Your task to perform on an android device: Open the stopwatch Image 0: 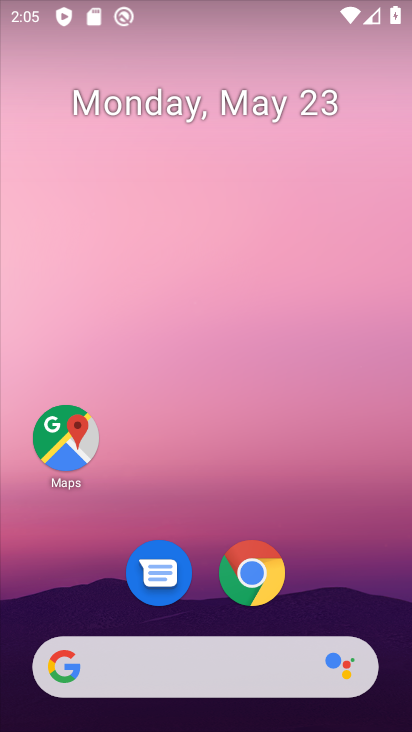
Step 0: drag from (332, 580) to (315, 135)
Your task to perform on an android device: Open the stopwatch Image 1: 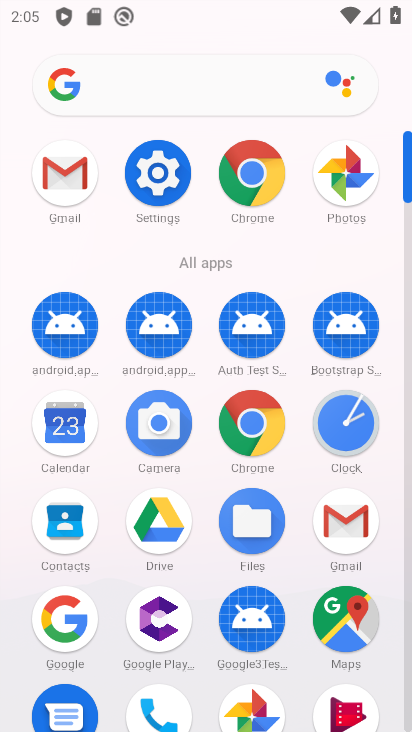
Step 1: click (347, 416)
Your task to perform on an android device: Open the stopwatch Image 2: 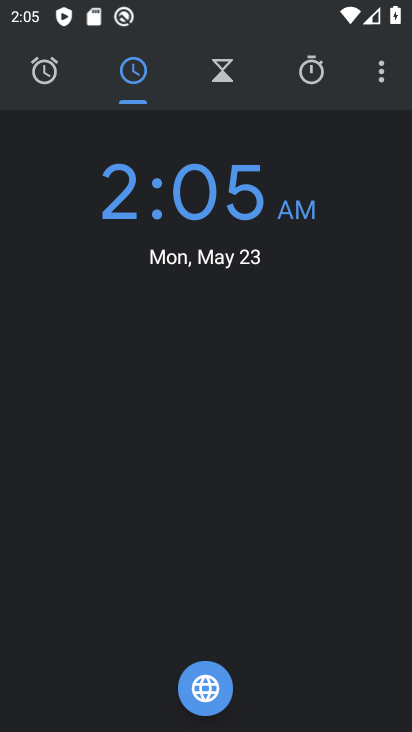
Step 2: click (308, 61)
Your task to perform on an android device: Open the stopwatch Image 3: 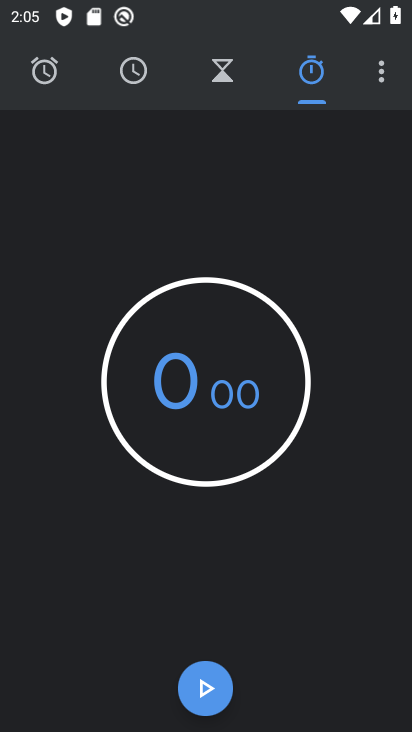
Step 3: task complete